Your task to perform on an android device: Open notification settings Image 0: 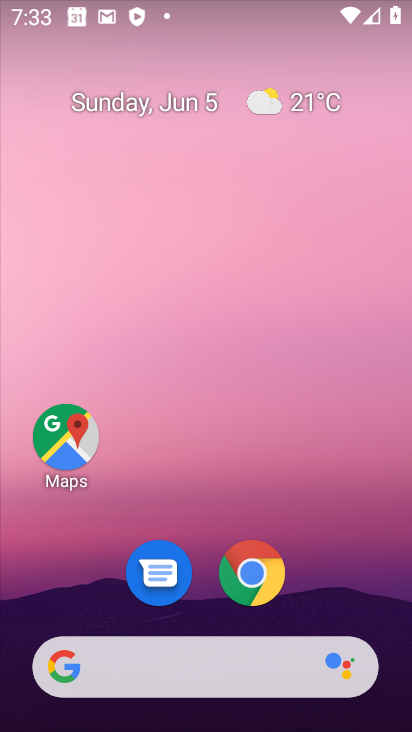
Step 0: drag from (315, 631) to (289, 305)
Your task to perform on an android device: Open notification settings Image 1: 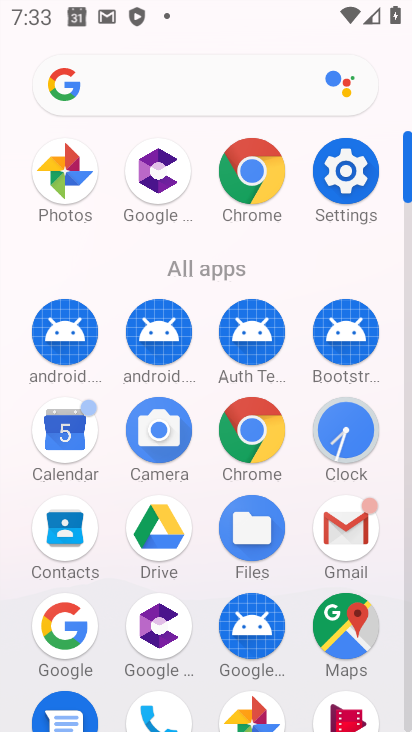
Step 1: click (347, 163)
Your task to perform on an android device: Open notification settings Image 2: 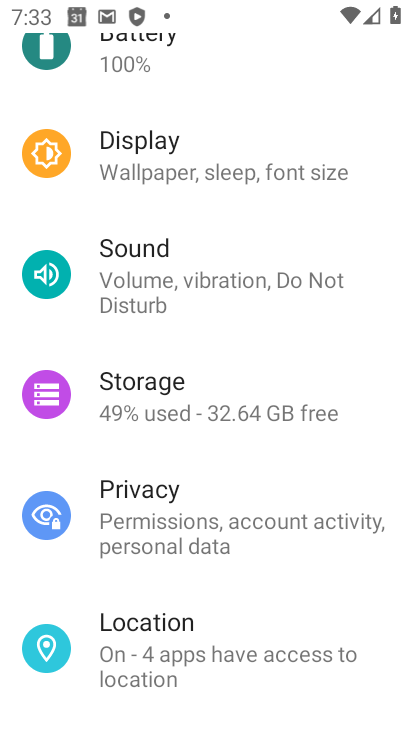
Step 2: drag from (145, 654) to (249, 233)
Your task to perform on an android device: Open notification settings Image 3: 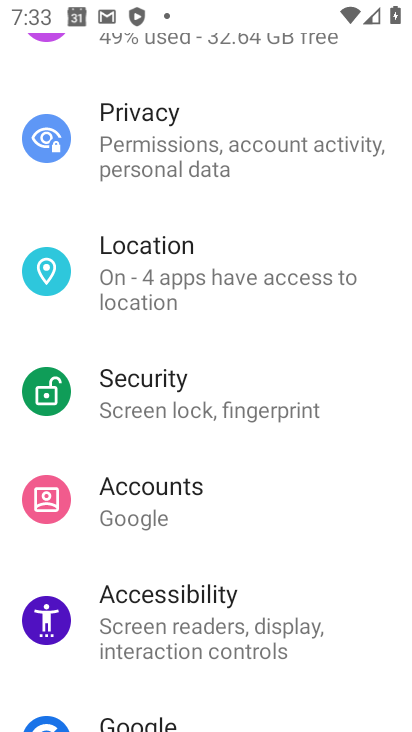
Step 3: drag from (187, 581) to (235, 709)
Your task to perform on an android device: Open notification settings Image 4: 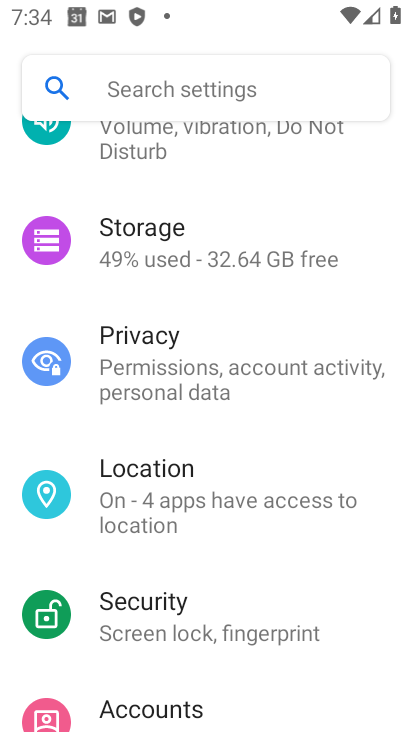
Step 4: drag from (213, 207) to (227, 631)
Your task to perform on an android device: Open notification settings Image 5: 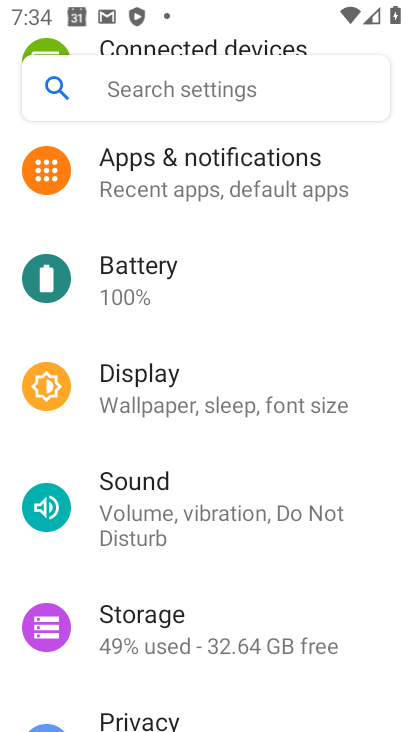
Step 5: click (223, 181)
Your task to perform on an android device: Open notification settings Image 6: 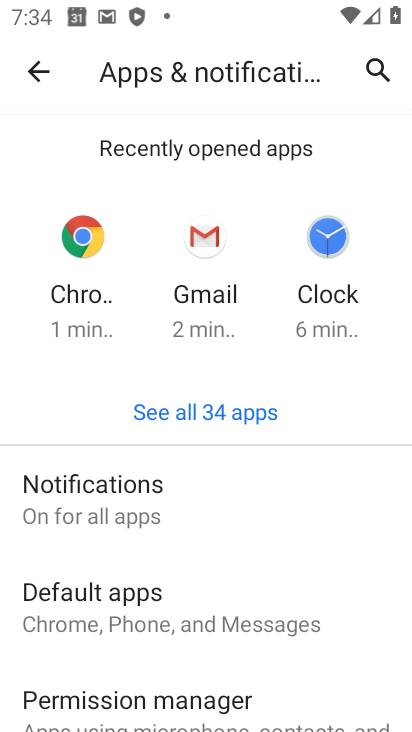
Step 6: task complete